Your task to perform on an android device: turn on translation in the chrome app Image 0: 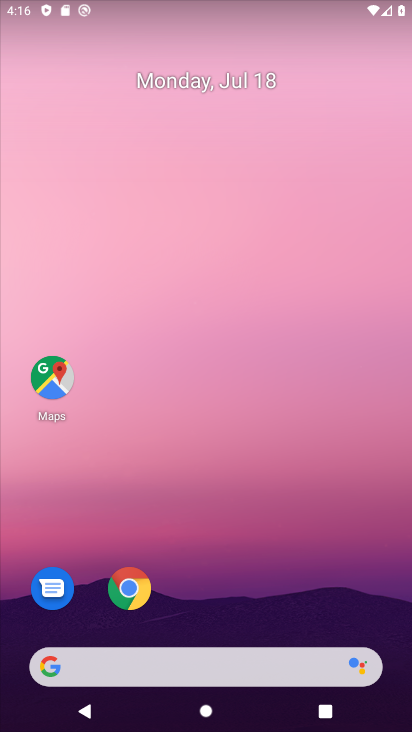
Step 0: press home button
Your task to perform on an android device: turn on translation in the chrome app Image 1: 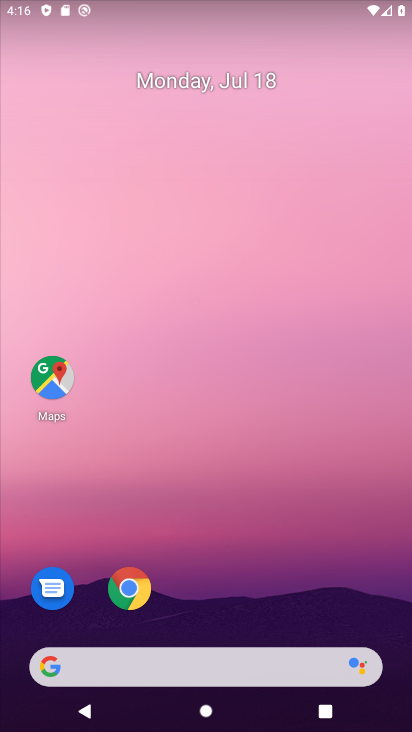
Step 1: click (124, 579)
Your task to perform on an android device: turn on translation in the chrome app Image 2: 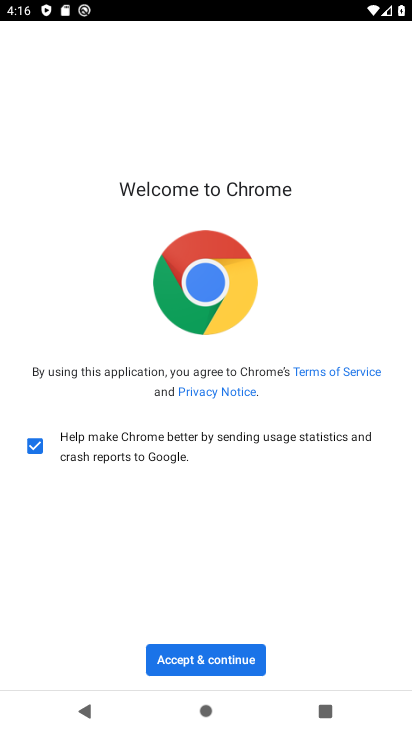
Step 2: click (195, 655)
Your task to perform on an android device: turn on translation in the chrome app Image 3: 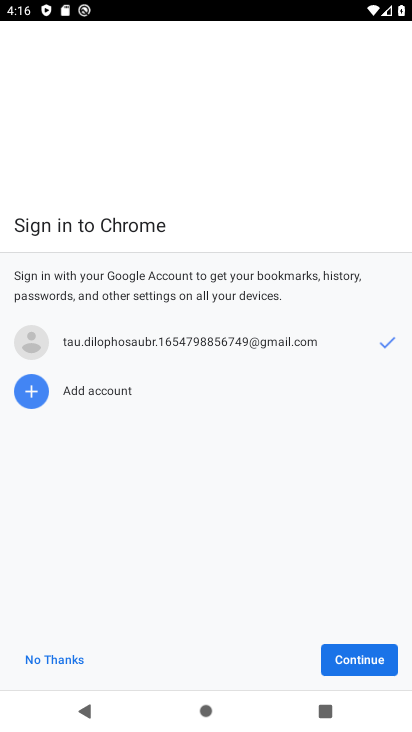
Step 3: click (361, 658)
Your task to perform on an android device: turn on translation in the chrome app Image 4: 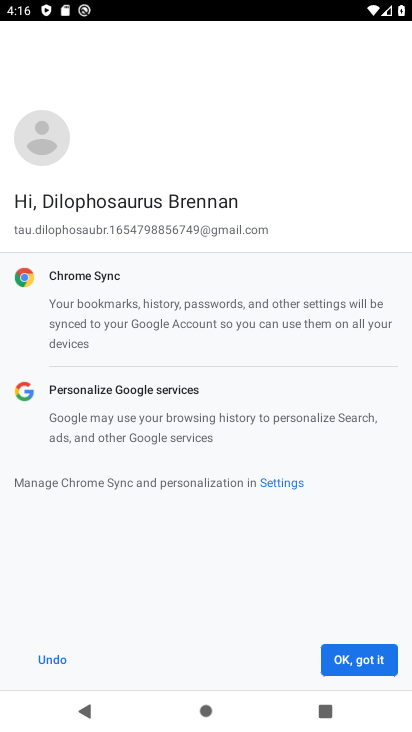
Step 4: click (361, 658)
Your task to perform on an android device: turn on translation in the chrome app Image 5: 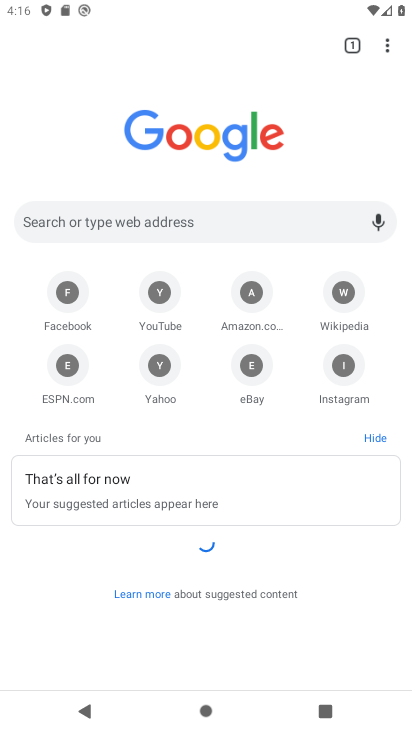
Step 5: click (383, 50)
Your task to perform on an android device: turn on translation in the chrome app Image 6: 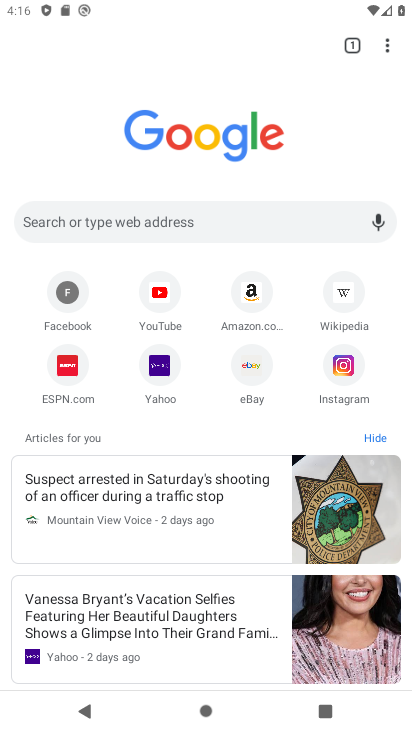
Step 6: click (389, 48)
Your task to perform on an android device: turn on translation in the chrome app Image 7: 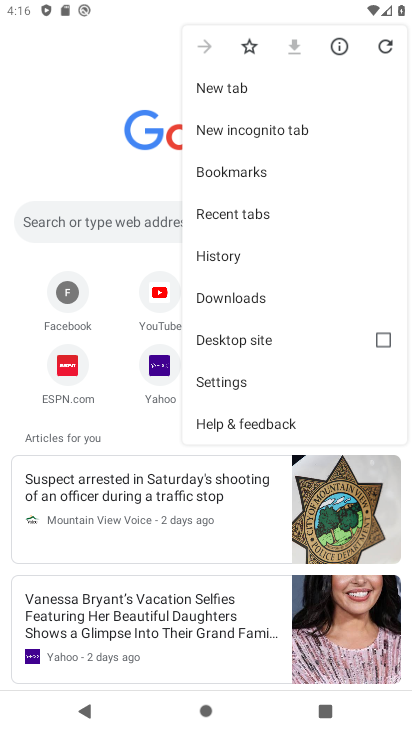
Step 7: click (257, 378)
Your task to perform on an android device: turn on translation in the chrome app Image 8: 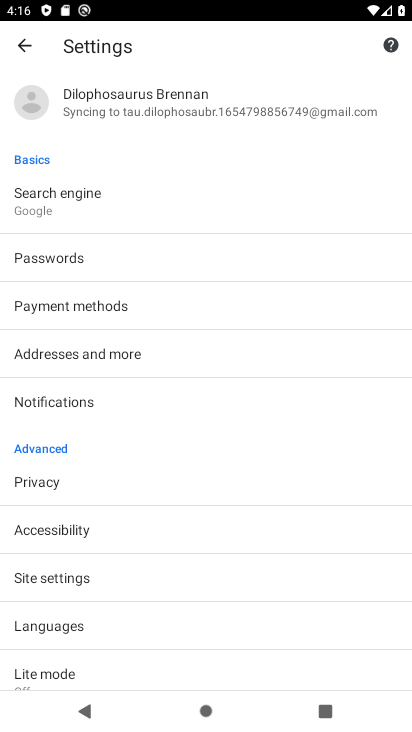
Step 8: drag from (127, 649) to (128, 110)
Your task to perform on an android device: turn on translation in the chrome app Image 9: 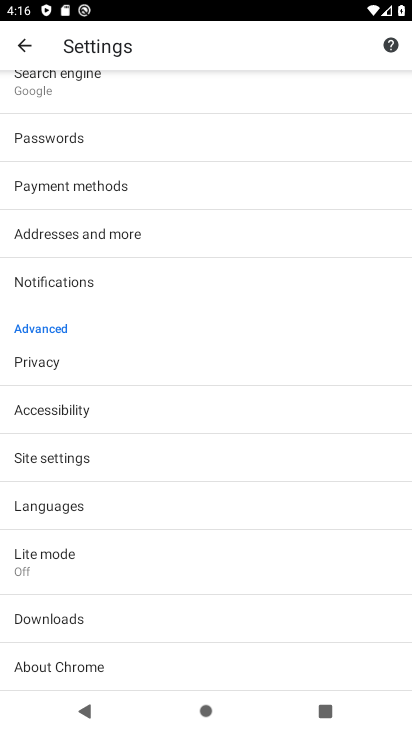
Step 9: click (90, 502)
Your task to perform on an android device: turn on translation in the chrome app Image 10: 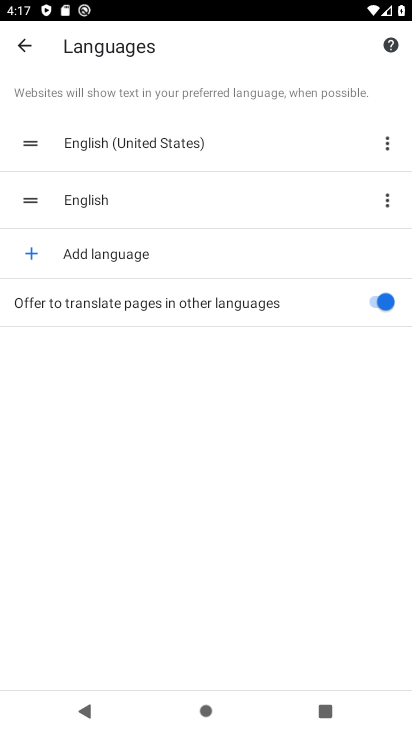
Step 10: task complete